Your task to perform on an android device: open app "Truecaller" (install if not already installed) Image 0: 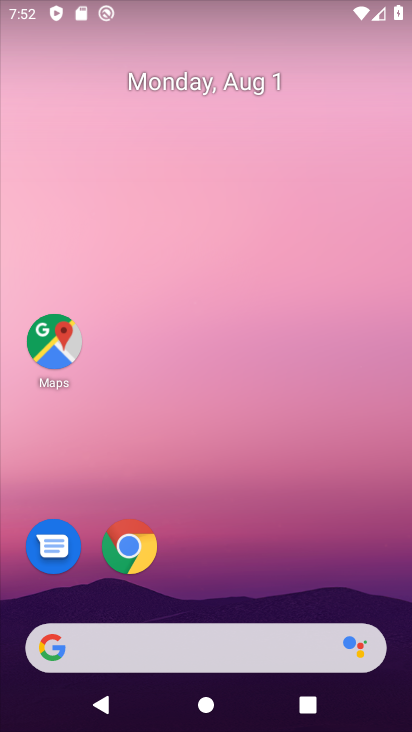
Step 0: drag from (257, 562) to (312, 7)
Your task to perform on an android device: open app "Truecaller" (install if not already installed) Image 1: 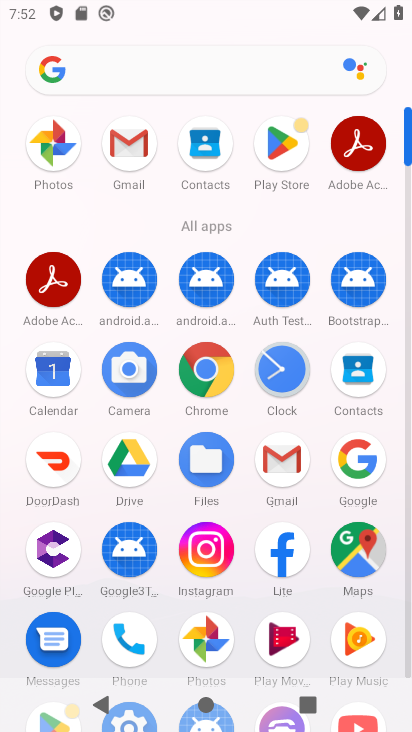
Step 1: click (285, 158)
Your task to perform on an android device: open app "Truecaller" (install if not already installed) Image 2: 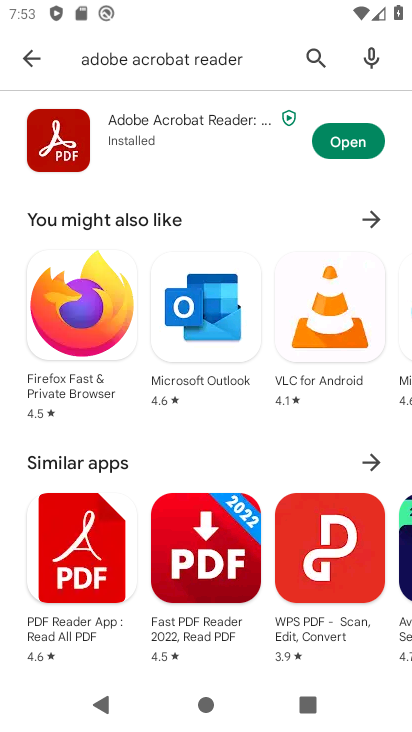
Step 2: click (272, 57)
Your task to perform on an android device: open app "Truecaller" (install if not already installed) Image 3: 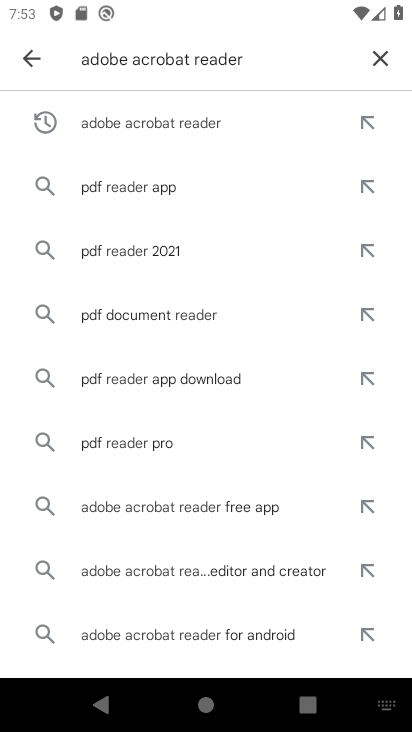
Step 3: click (379, 56)
Your task to perform on an android device: open app "Truecaller" (install if not already installed) Image 4: 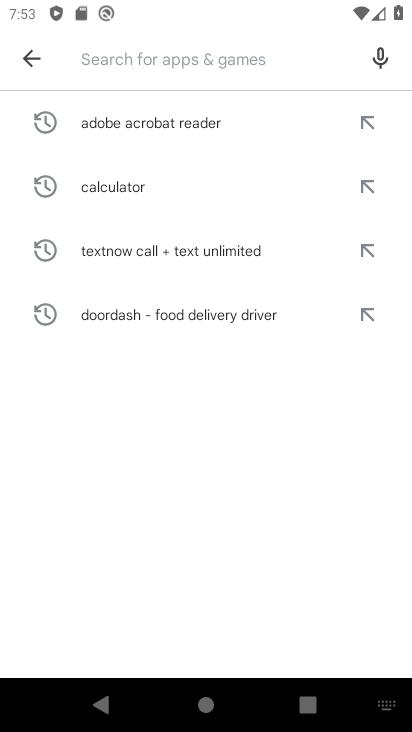
Step 4: type "truecaller"
Your task to perform on an android device: open app "Truecaller" (install if not already installed) Image 5: 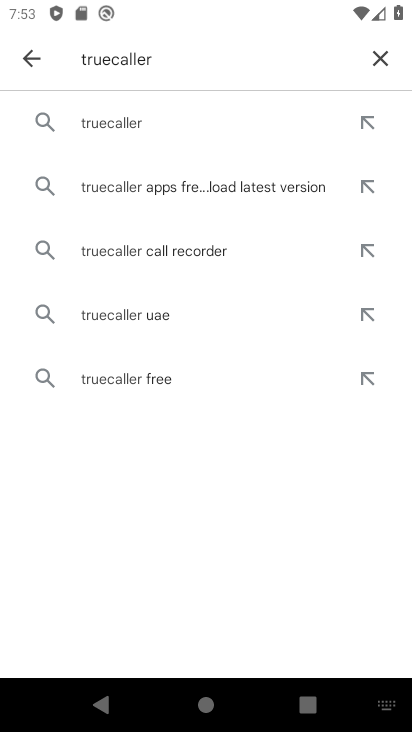
Step 5: click (129, 119)
Your task to perform on an android device: open app "Truecaller" (install if not already installed) Image 6: 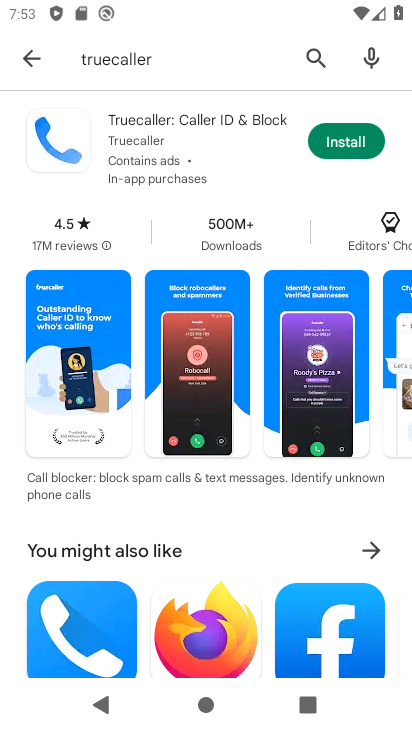
Step 6: click (339, 145)
Your task to perform on an android device: open app "Truecaller" (install if not already installed) Image 7: 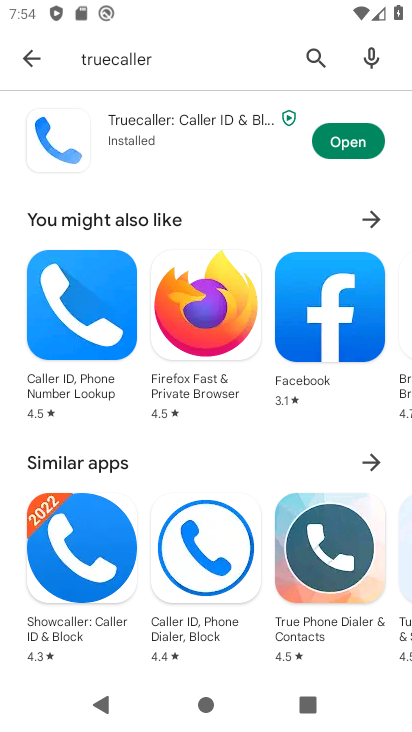
Step 7: click (363, 135)
Your task to perform on an android device: open app "Truecaller" (install if not already installed) Image 8: 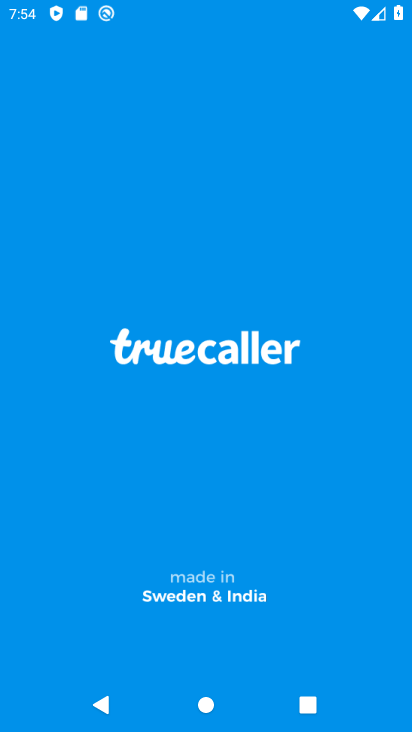
Step 8: task complete